Your task to perform on an android device: Open settings on Google Maps Image 0: 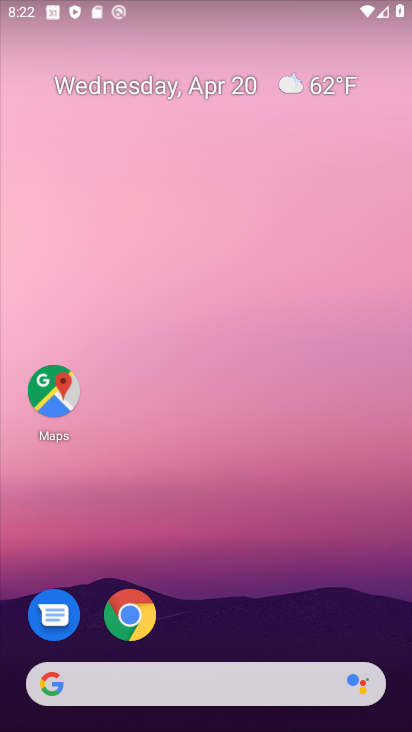
Step 0: click (57, 394)
Your task to perform on an android device: Open settings on Google Maps Image 1: 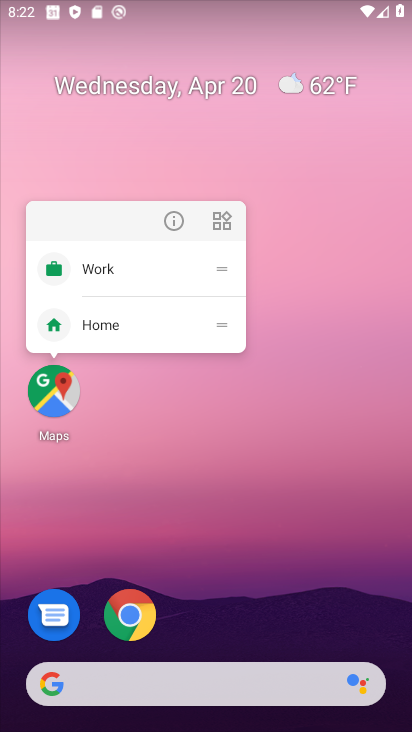
Step 1: click (57, 394)
Your task to perform on an android device: Open settings on Google Maps Image 2: 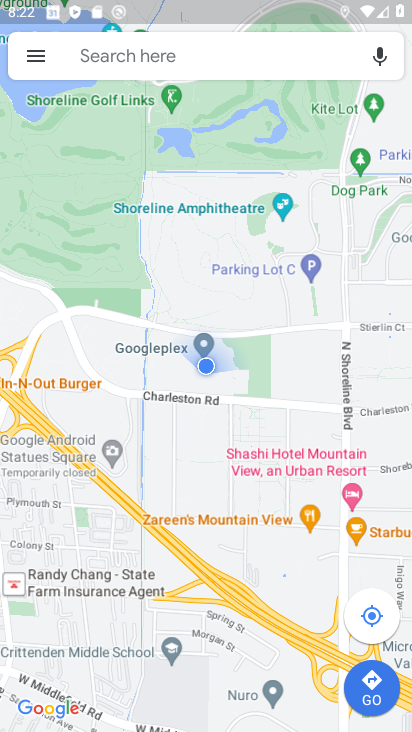
Step 2: task complete